Your task to perform on an android device: turn smart compose on in the gmail app Image 0: 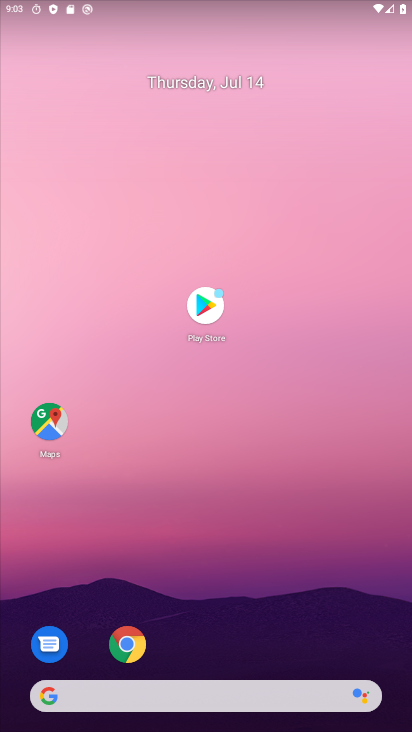
Step 0: drag from (161, 687) to (214, 43)
Your task to perform on an android device: turn smart compose on in the gmail app Image 1: 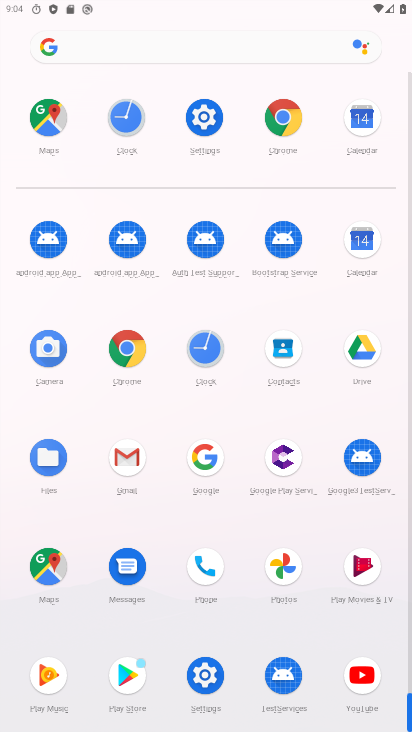
Step 1: click (136, 452)
Your task to perform on an android device: turn smart compose on in the gmail app Image 2: 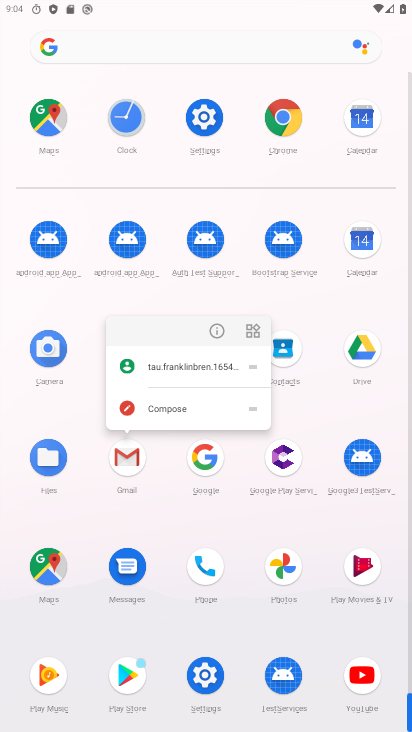
Step 2: click (212, 332)
Your task to perform on an android device: turn smart compose on in the gmail app Image 3: 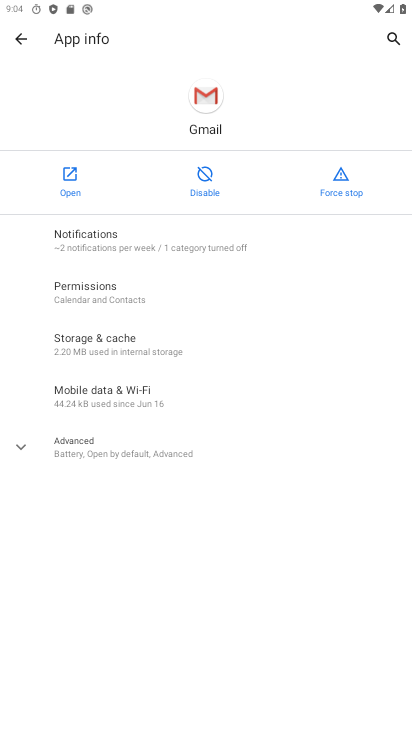
Step 3: click (75, 167)
Your task to perform on an android device: turn smart compose on in the gmail app Image 4: 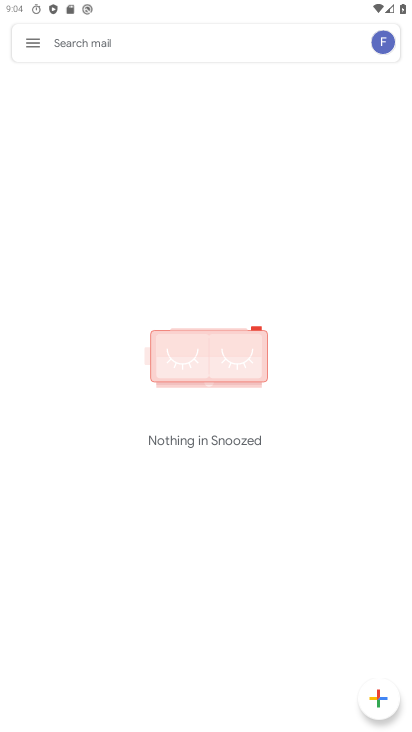
Step 4: click (34, 49)
Your task to perform on an android device: turn smart compose on in the gmail app Image 5: 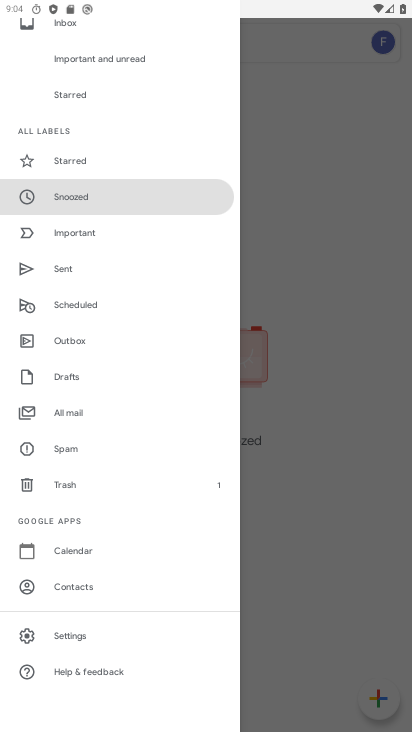
Step 5: drag from (75, 634) to (105, 172)
Your task to perform on an android device: turn smart compose on in the gmail app Image 6: 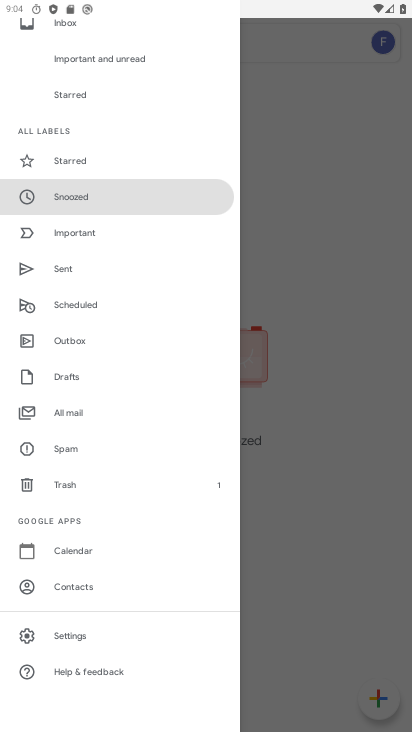
Step 6: click (94, 627)
Your task to perform on an android device: turn smart compose on in the gmail app Image 7: 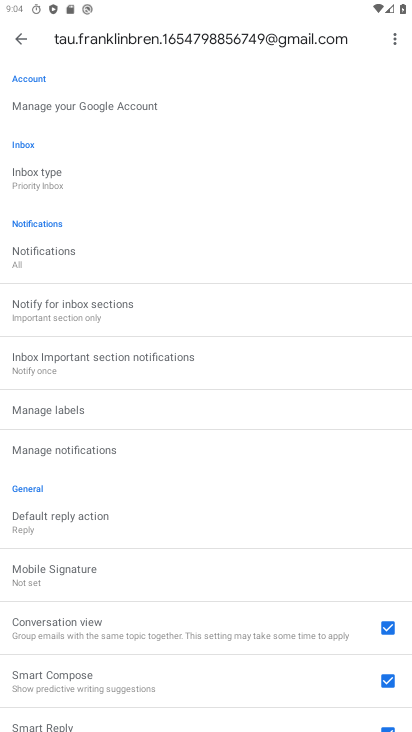
Step 7: task complete